Your task to perform on an android device: check battery use Image 0: 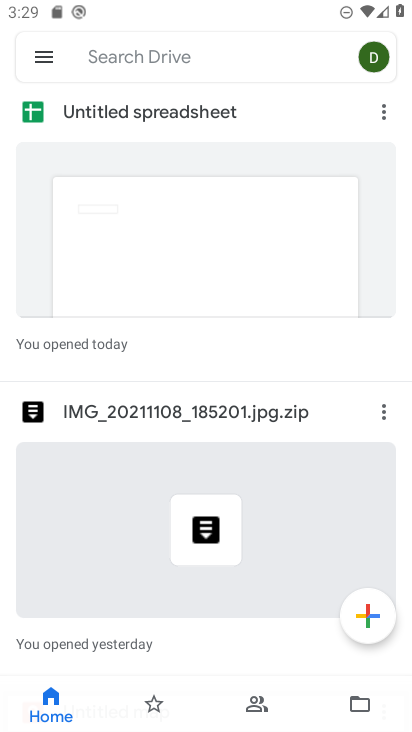
Step 0: press home button
Your task to perform on an android device: check battery use Image 1: 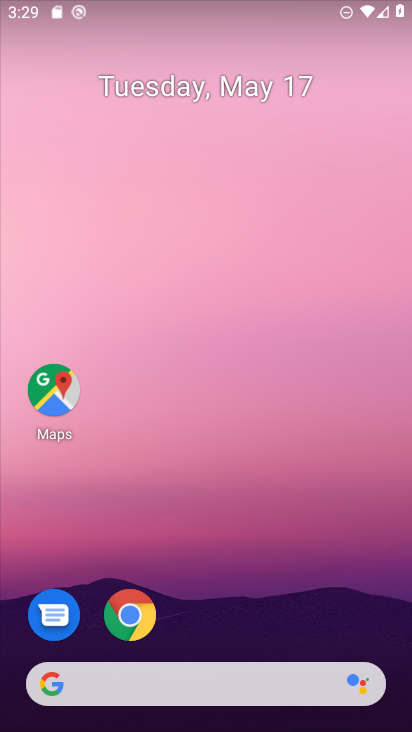
Step 1: drag from (222, 716) to (216, 243)
Your task to perform on an android device: check battery use Image 2: 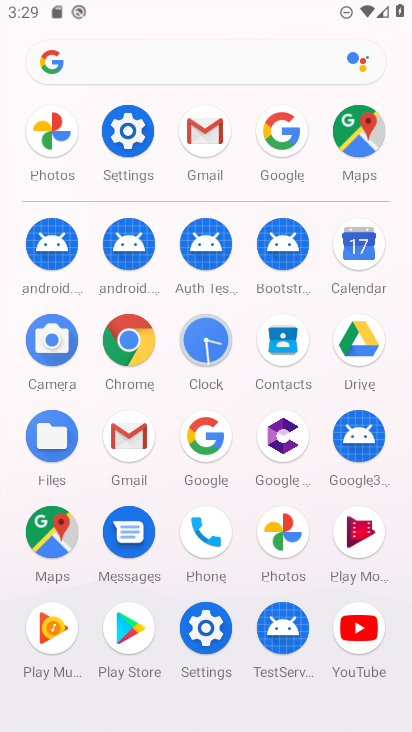
Step 2: click (117, 133)
Your task to perform on an android device: check battery use Image 3: 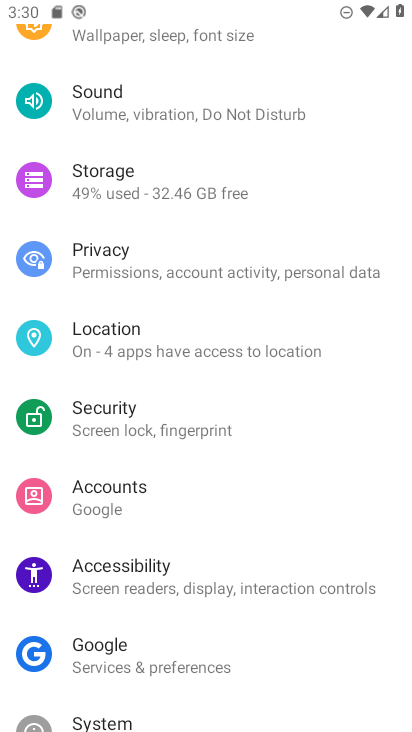
Step 3: drag from (189, 208) to (195, 494)
Your task to perform on an android device: check battery use Image 4: 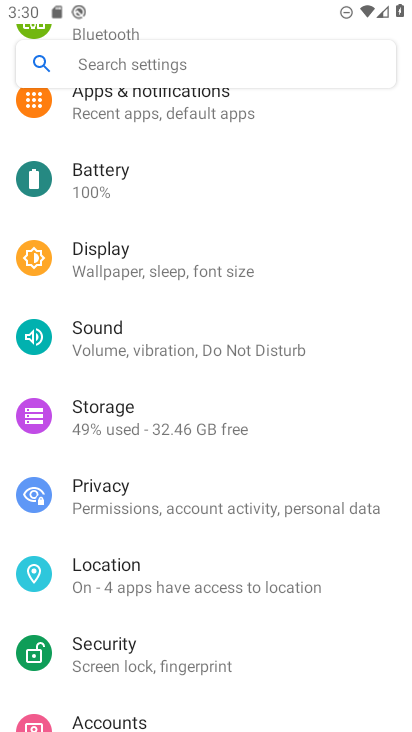
Step 4: click (92, 169)
Your task to perform on an android device: check battery use Image 5: 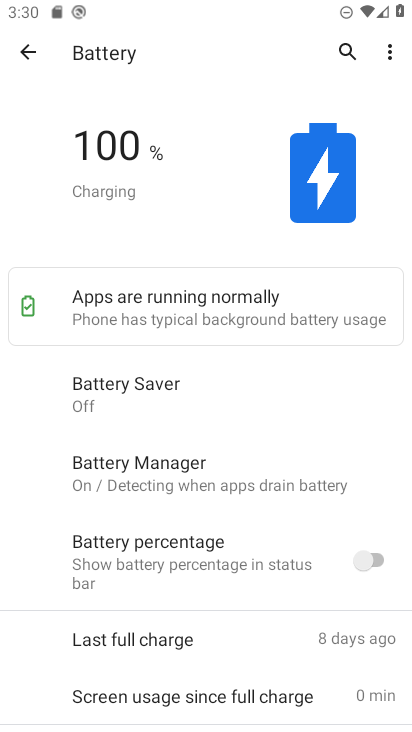
Step 5: click (392, 47)
Your task to perform on an android device: check battery use Image 6: 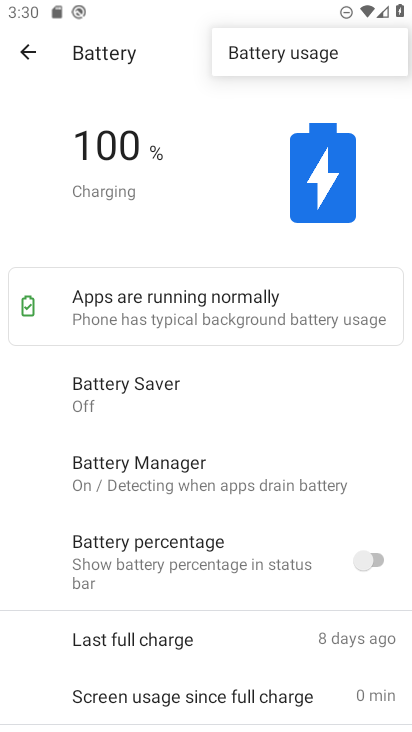
Step 6: click (271, 50)
Your task to perform on an android device: check battery use Image 7: 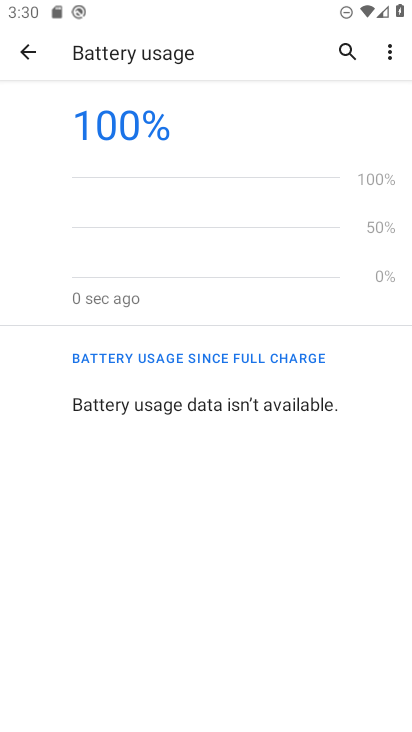
Step 7: task complete